Your task to perform on an android device: Show me popular games on the Play Store Image 0: 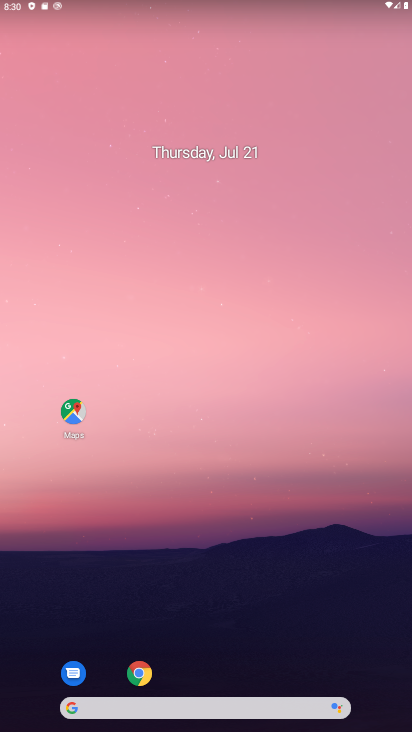
Step 0: drag from (194, 722) to (194, 154)
Your task to perform on an android device: Show me popular games on the Play Store Image 1: 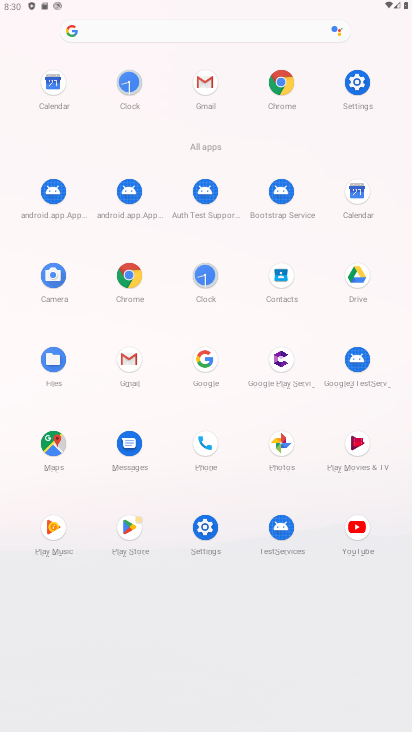
Step 1: click (127, 522)
Your task to perform on an android device: Show me popular games on the Play Store Image 2: 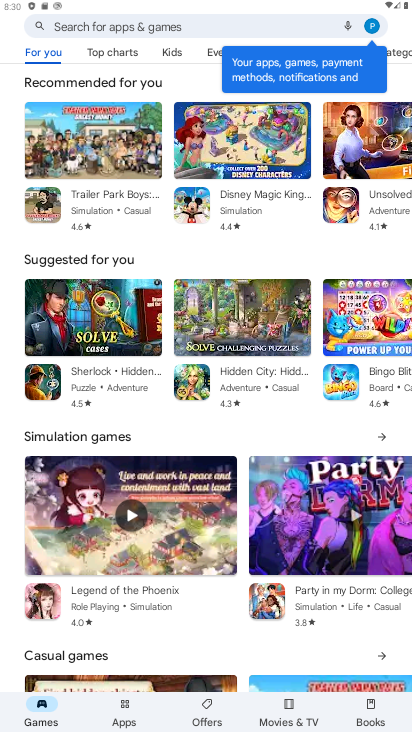
Step 2: drag from (165, 651) to (151, 268)
Your task to perform on an android device: Show me popular games on the Play Store Image 3: 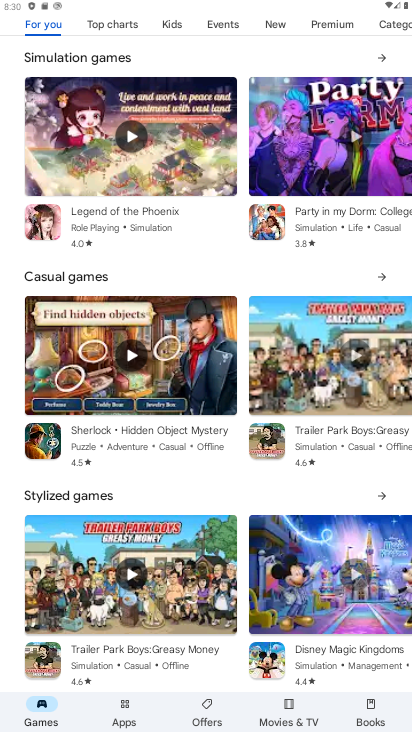
Step 3: drag from (179, 646) to (185, 260)
Your task to perform on an android device: Show me popular games on the Play Store Image 4: 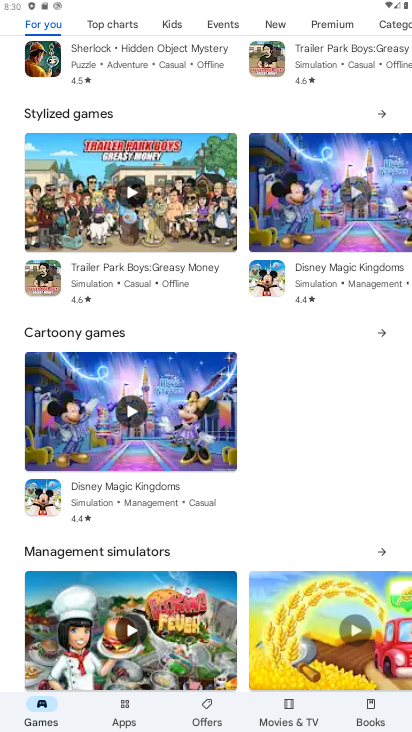
Step 4: drag from (177, 595) to (186, 182)
Your task to perform on an android device: Show me popular games on the Play Store Image 5: 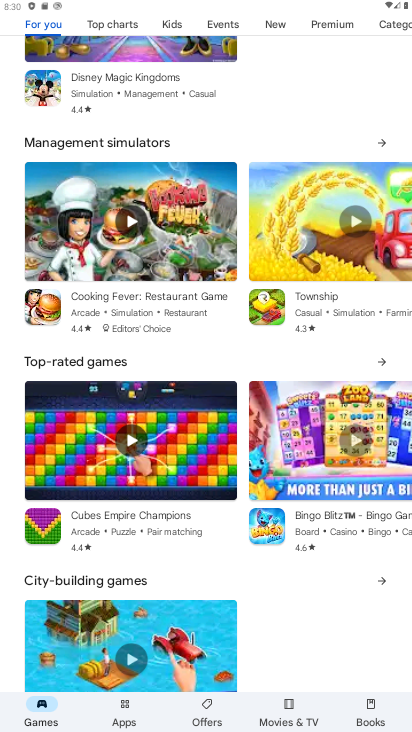
Step 5: drag from (233, 641) to (243, 143)
Your task to perform on an android device: Show me popular games on the Play Store Image 6: 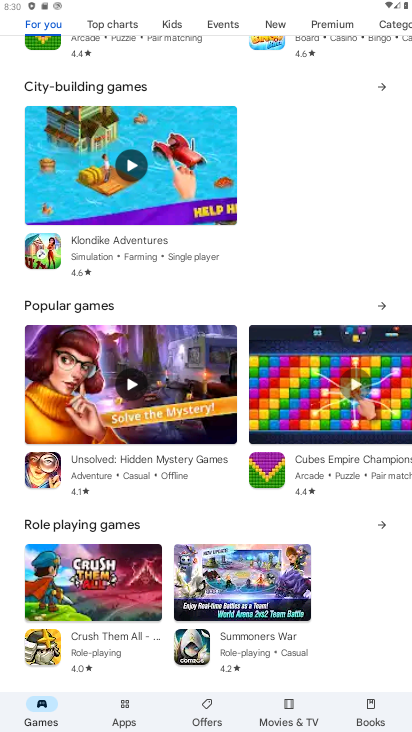
Step 6: drag from (280, 201) to (273, 556)
Your task to perform on an android device: Show me popular games on the Play Store Image 7: 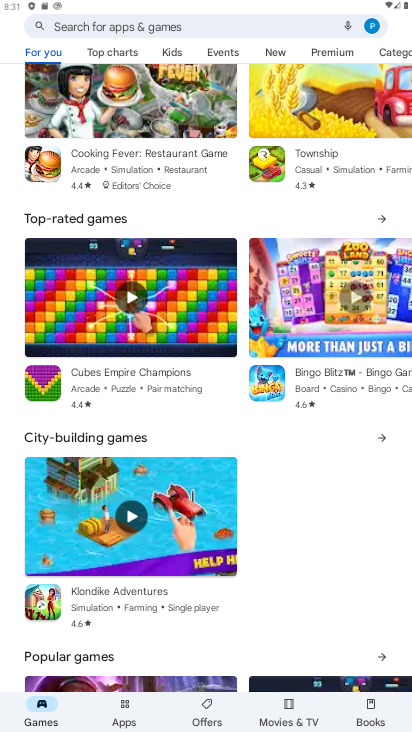
Step 7: drag from (248, 527) to (261, 374)
Your task to perform on an android device: Show me popular games on the Play Store Image 8: 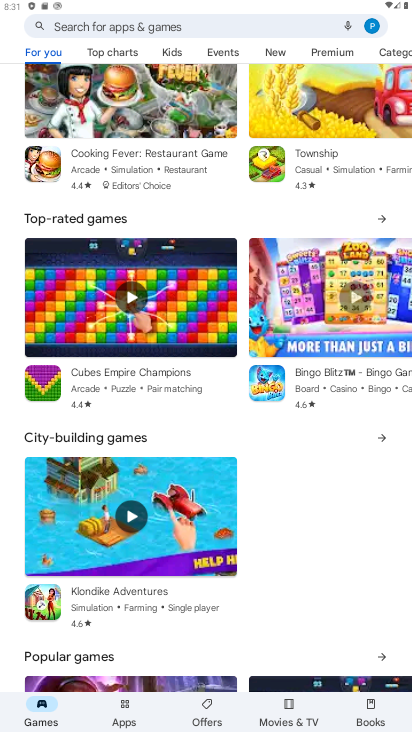
Step 8: click (385, 659)
Your task to perform on an android device: Show me popular games on the Play Store Image 9: 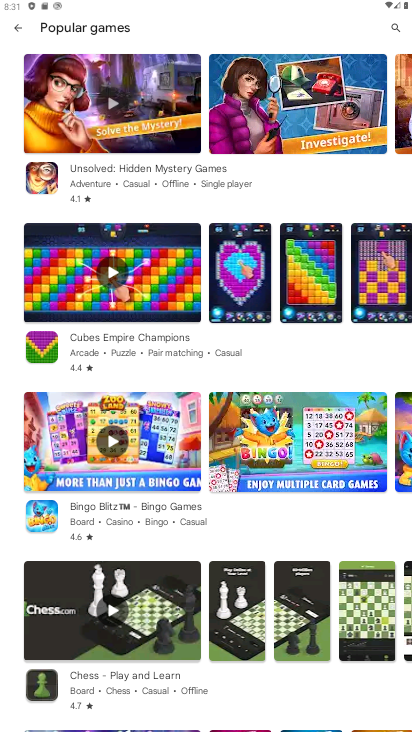
Step 9: task complete